Your task to perform on an android device: empty trash in the gmail app Image 0: 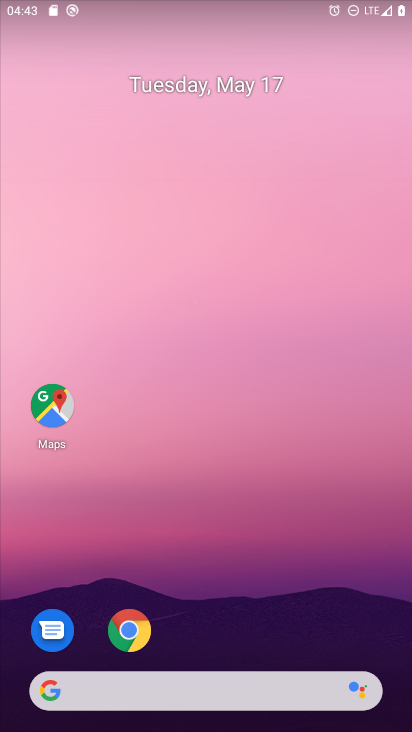
Step 0: drag from (228, 609) to (285, 11)
Your task to perform on an android device: empty trash in the gmail app Image 1: 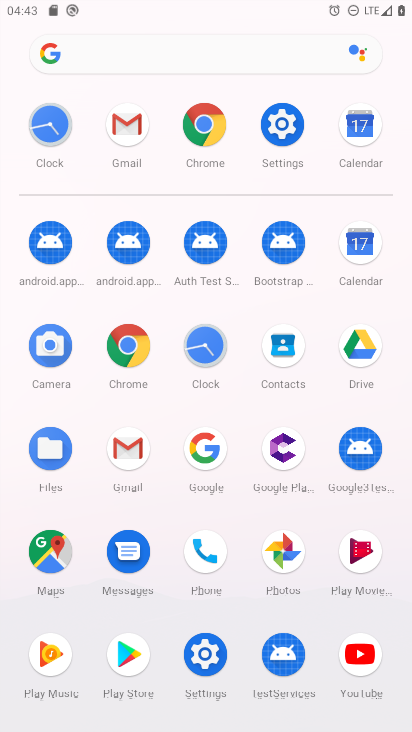
Step 1: click (126, 129)
Your task to perform on an android device: empty trash in the gmail app Image 2: 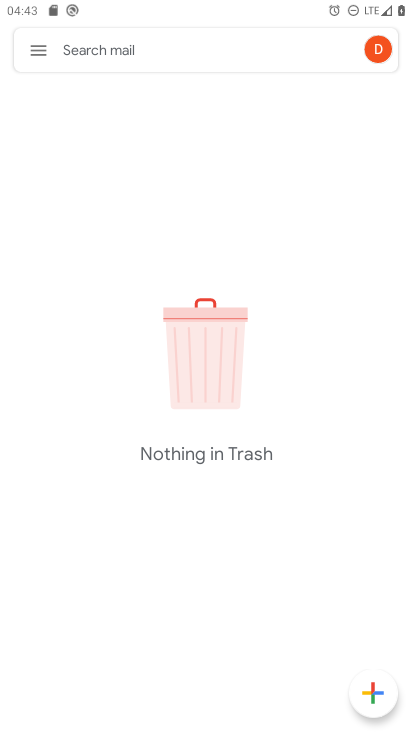
Step 2: click (31, 48)
Your task to perform on an android device: empty trash in the gmail app Image 3: 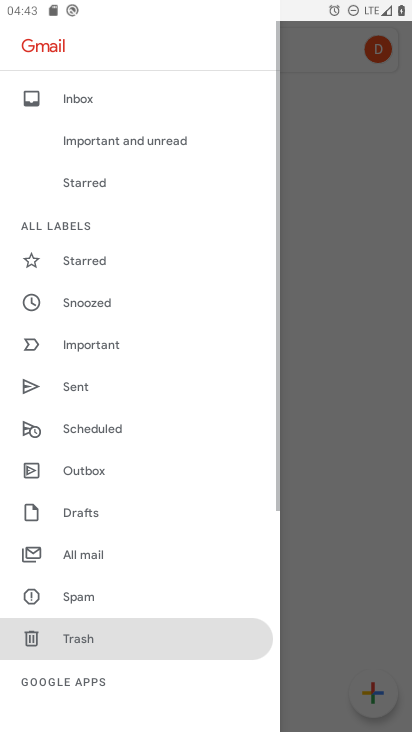
Step 3: task complete